Your task to perform on an android device: snooze an email in the gmail app Image 0: 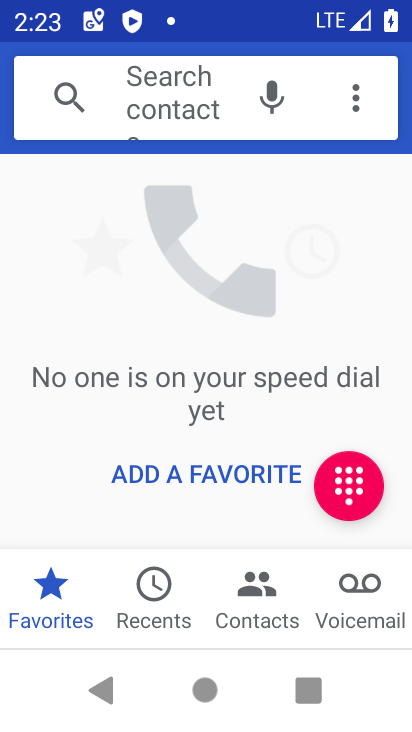
Step 0: press home button
Your task to perform on an android device: snooze an email in the gmail app Image 1: 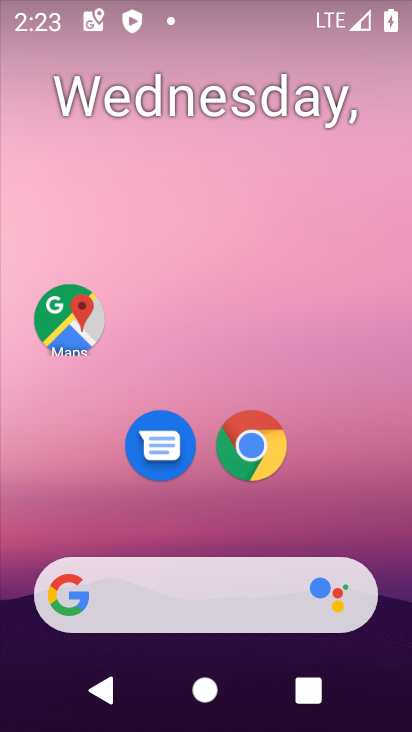
Step 1: drag from (210, 539) to (213, 181)
Your task to perform on an android device: snooze an email in the gmail app Image 2: 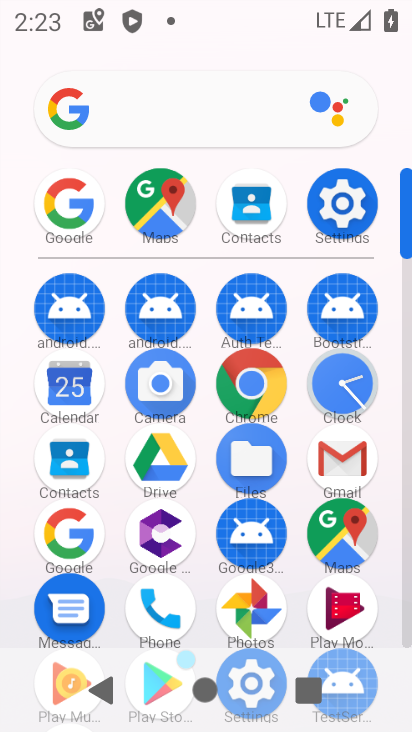
Step 2: click (352, 462)
Your task to perform on an android device: snooze an email in the gmail app Image 3: 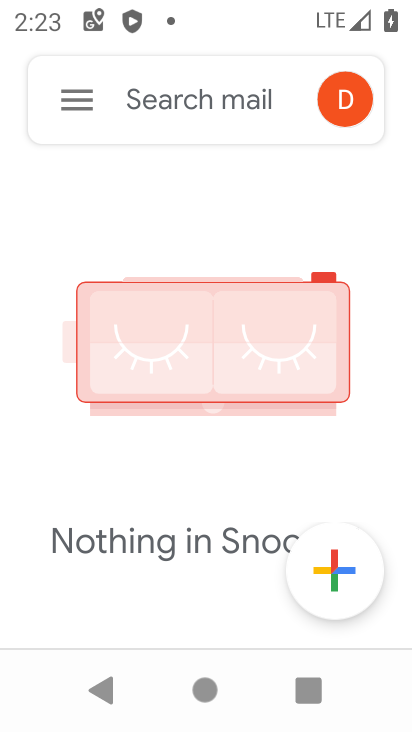
Step 3: click (78, 103)
Your task to perform on an android device: snooze an email in the gmail app Image 4: 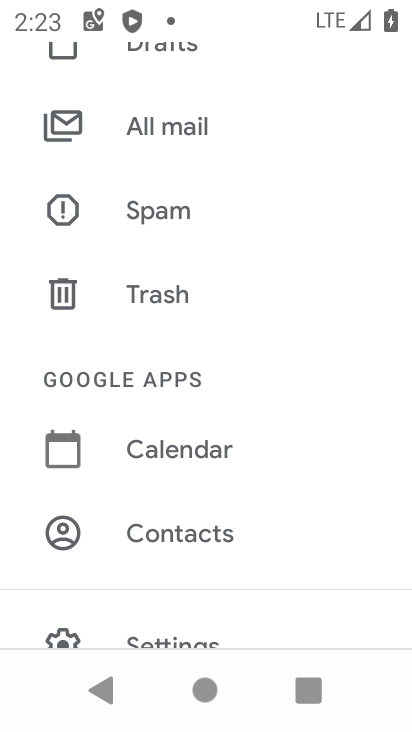
Step 4: click (165, 128)
Your task to perform on an android device: snooze an email in the gmail app Image 5: 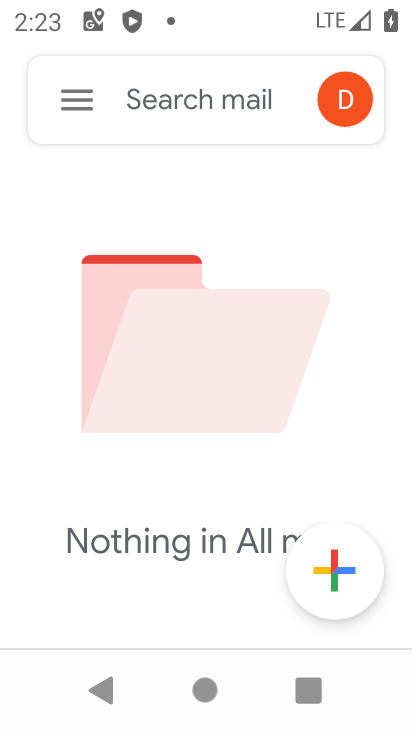
Step 5: drag from (220, 492) to (250, 240)
Your task to perform on an android device: snooze an email in the gmail app Image 6: 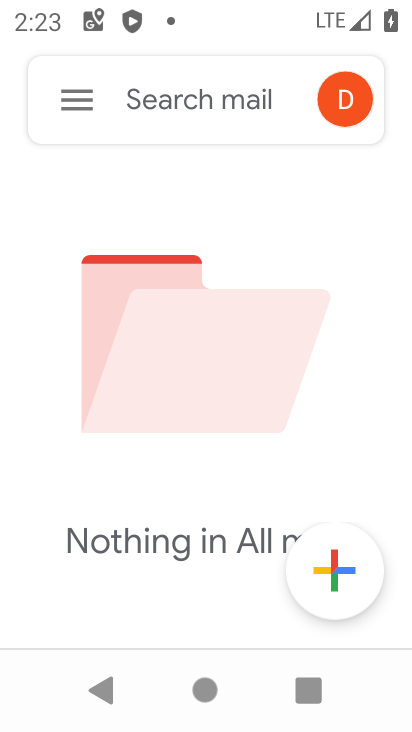
Step 6: click (80, 113)
Your task to perform on an android device: snooze an email in the gmail app Image 7: 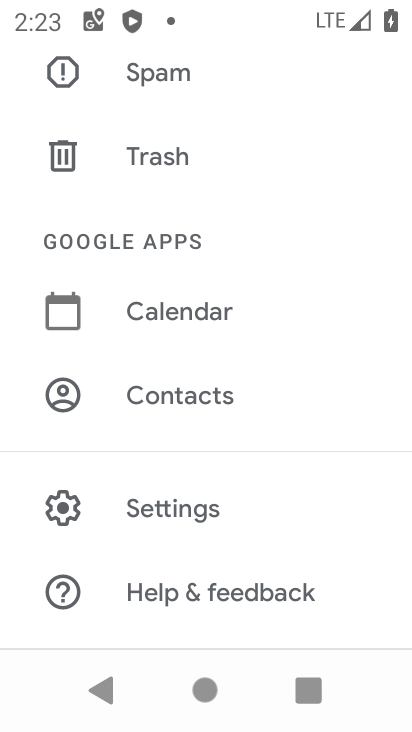
Step 7: drag from (225, 196) to (225, 483)
Your task to perform on an android device: snooze an email in the gmail app Image 8: 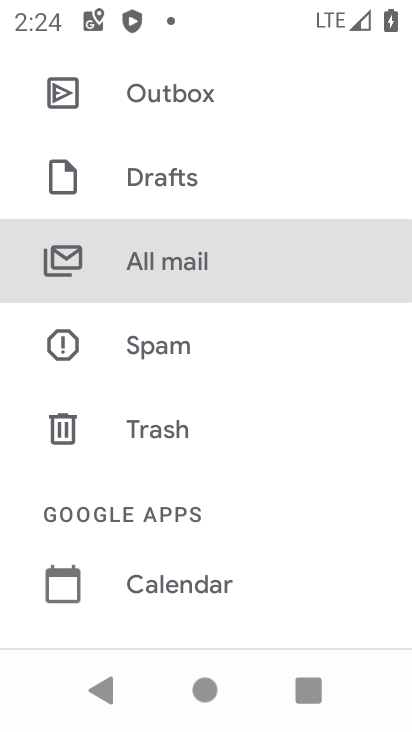
Step 8: click (179, 279)
Your task to perform on an android device: snooze an email in the gmail app Image 9: 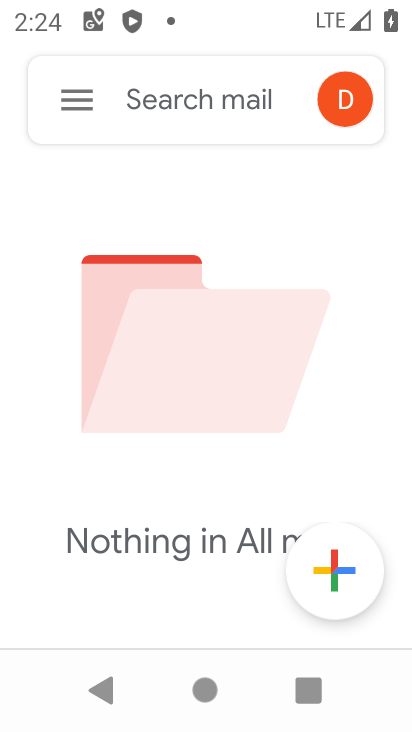
Step 9: task complete